Your task to perform on an android device: Open my contact list Image 0: 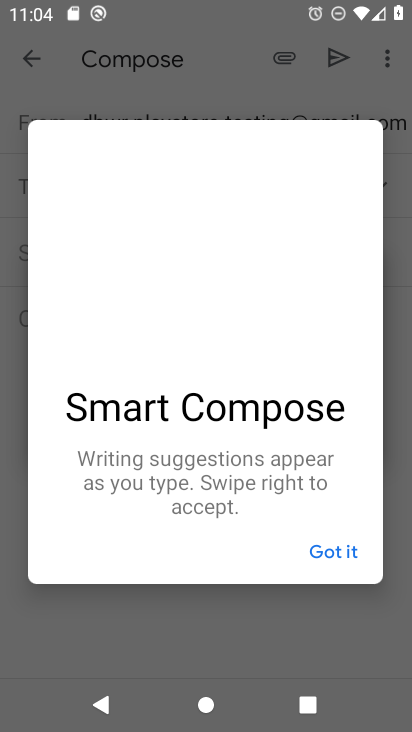
Step 0: press back button
Your task to perform on an android device: Open my contact list Image 1: 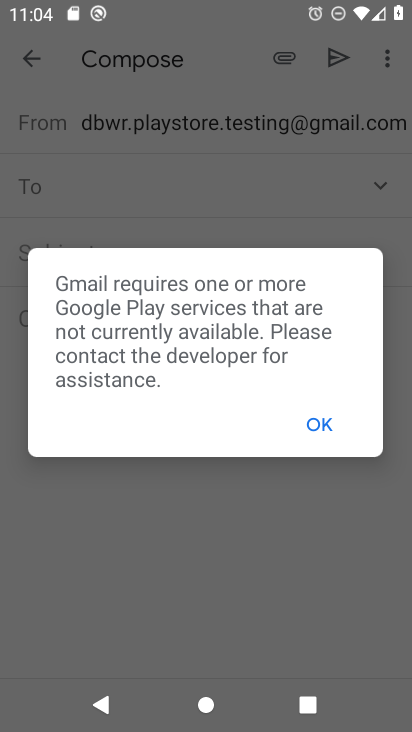
Step 1: press home button
Your task to perform on an android device: Open my contact list Image 2: 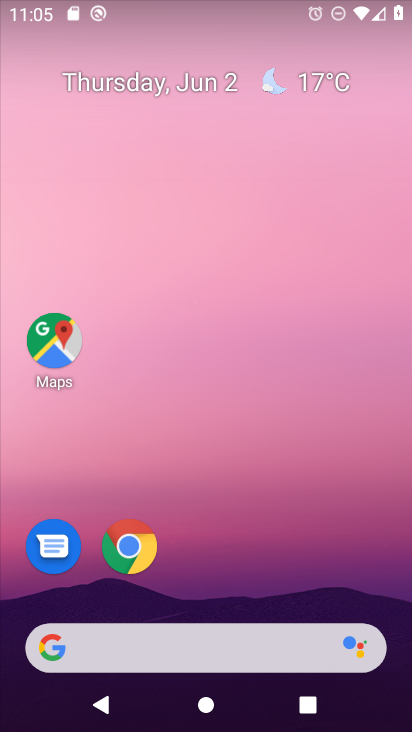
Step 2: drag from (233, 376) to (220, 26)
Your task to perform on an android device: Open my contact list Image 3: 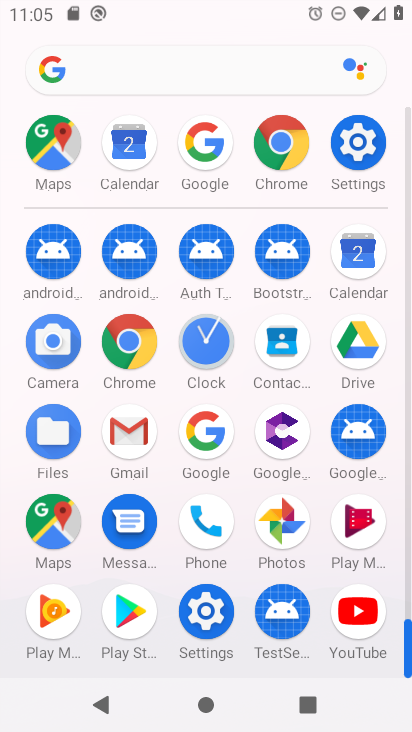
Step 3: click (275, 340)
Your task to perform on an android device: Open my contact list Image 4: 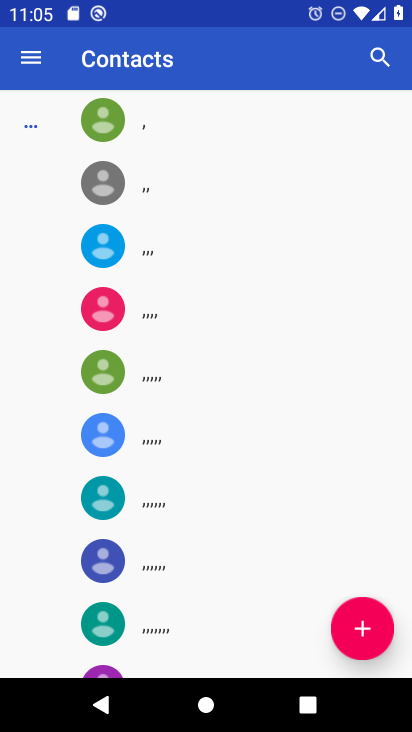
Step 4: task complete